Your task to perform on an android device: change the clock display to show seconds Image 0: 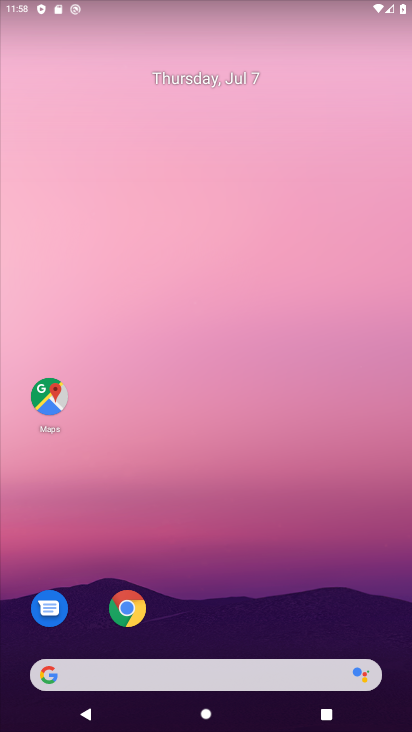
Step 0: drag from (255, 528) to (196, 147)
Your task to perform on an android device: change the clock display to show seconds Image 1: 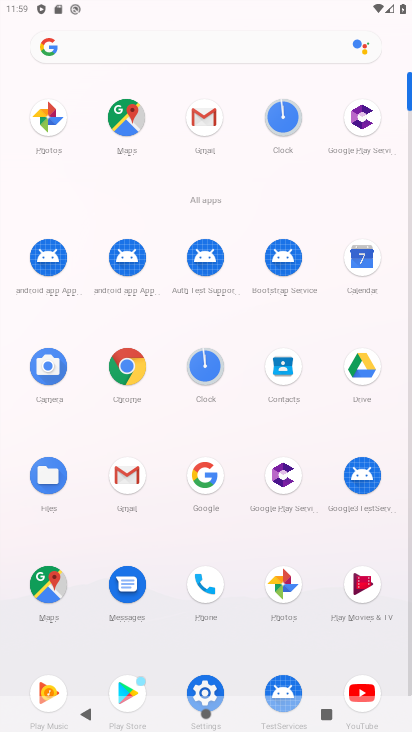
Step 1: click (297, 124)
Your task to perform on an android device: change the clock display to show seconds Image 2: 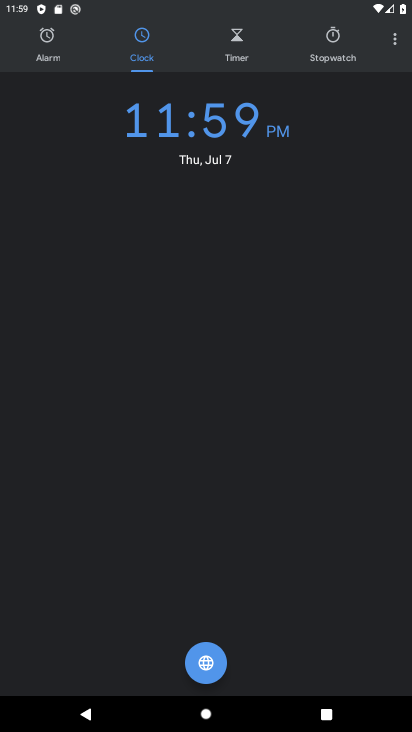
Step 2: click (394, 43)
Your task to perform on an android device: change the clock display to show seconds Image 3: 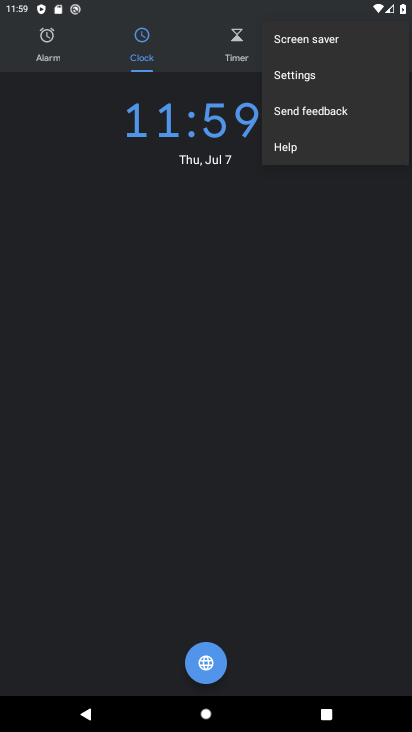
Step 3: click (324, 70)
Your task to perform on an android device: change the clock display to show seconds Image 4: 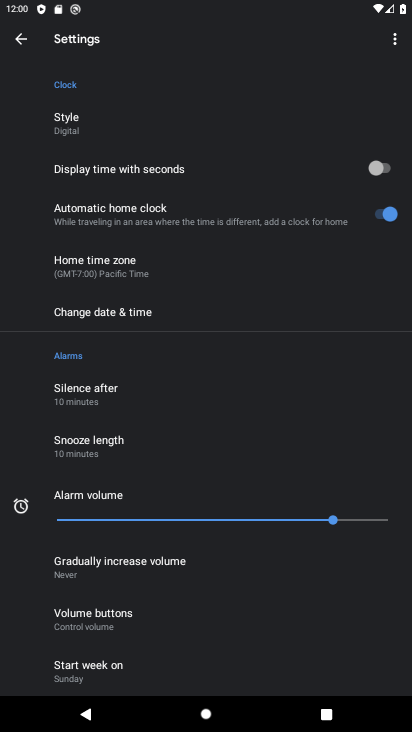
Step 4: click (276, 164)
Your task to perform on an android device: change the clock display to show seconds Image 5: 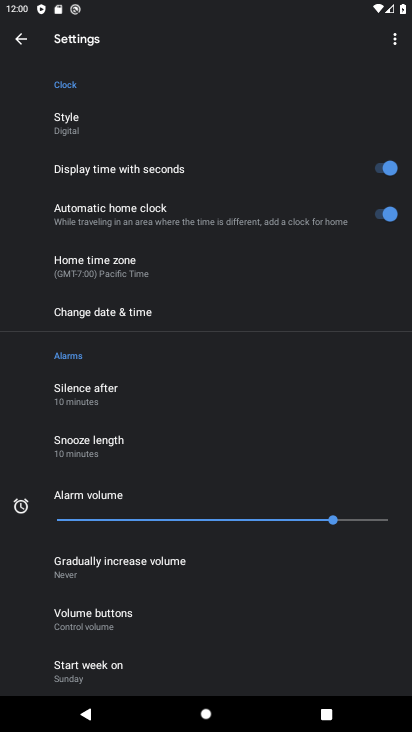
Step 5: task complete